Your task to perform on an android device: Play the last video I watched on Youtube Image 0: 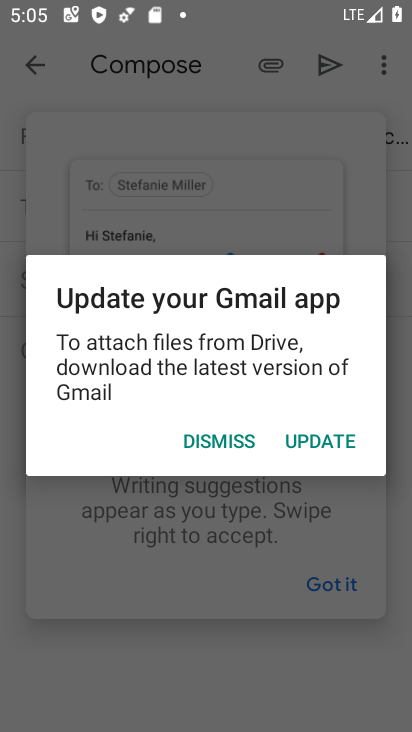
Step 0: press home button
Your task to perform on an android device: Play the last video I watched on Youtube Image 1: 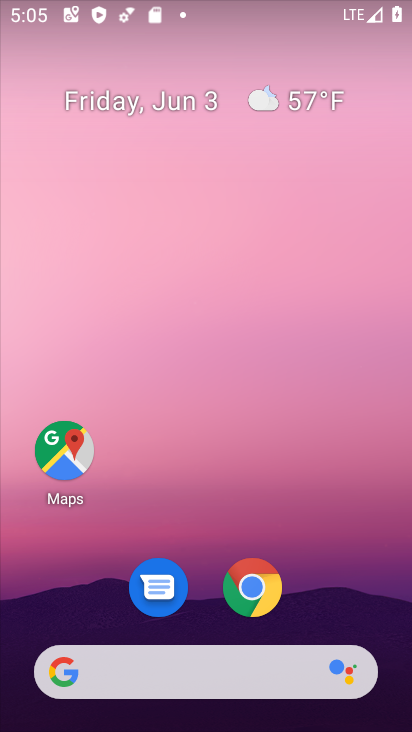
Step 1: drag from (185, 625) to (235, 90)
Your task to perform on an android device: Play the last video I watched on Youtube Image 2: 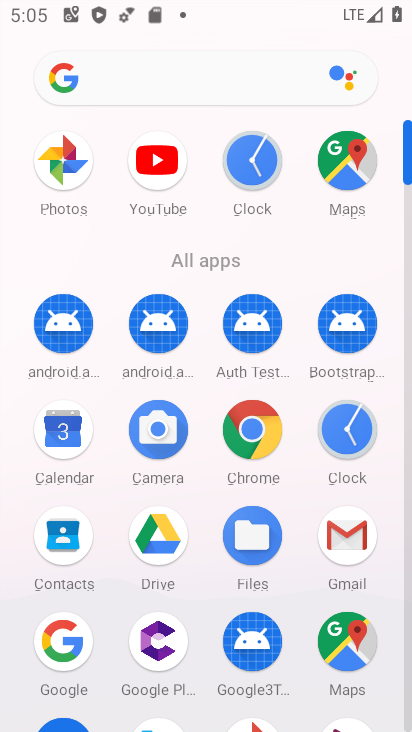
Step 2: click (155, 169)
Your task to perform on an android device: Play the last video I watched on Youtube Image 3: 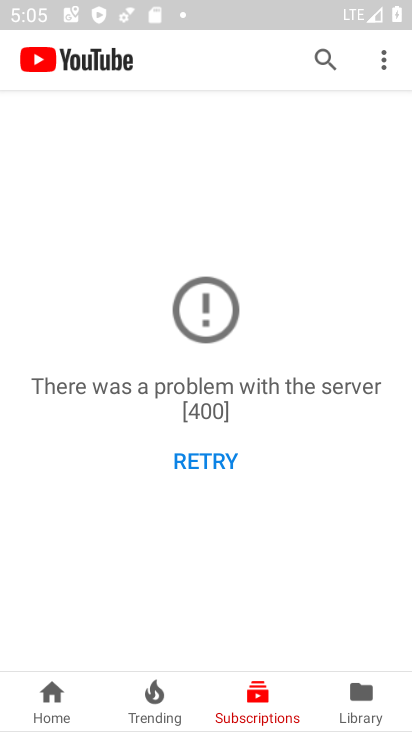
Step 3: click (369, 697)
Your task to perform on an android device: Play the last video I watched on Youtube Image 4: 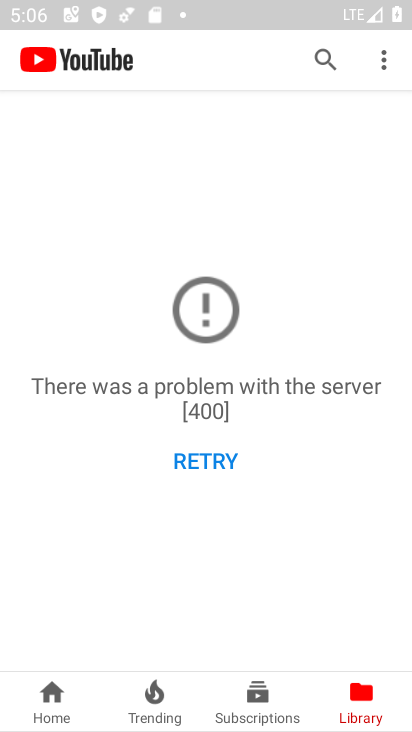
Step 4: task complete